Your task to perform on an android device: find snoozed emails in the gmail app Image 0: 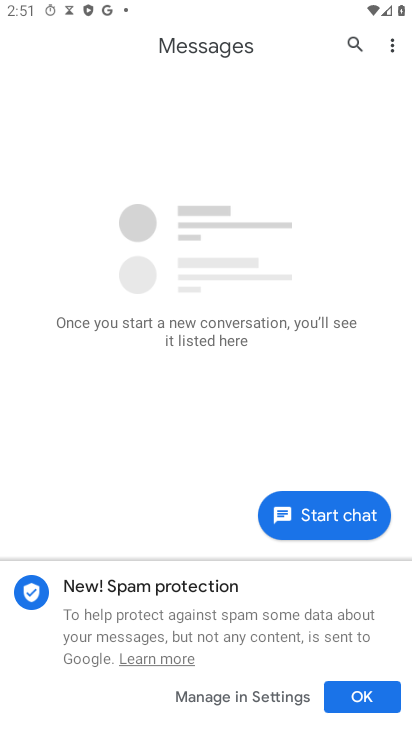
Step 0: drag from (298, 523) to (329, 126)
Your task to perform on an android device: find snoozed emails in the gmail app Image 1: 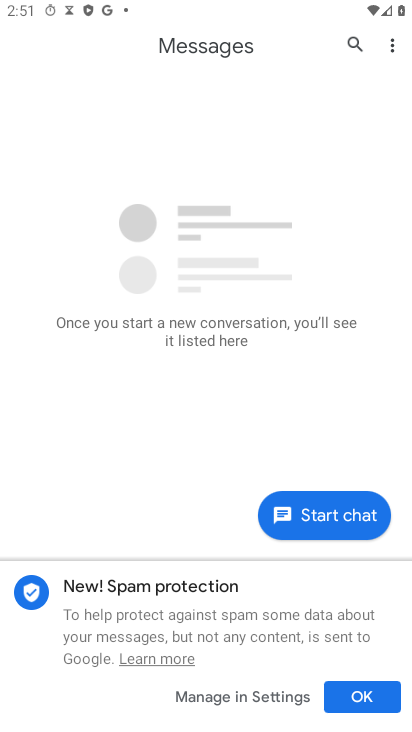
Step 1: press home button
Your task to perform on an android device: find snoozed emails in the gmail app Image 2: 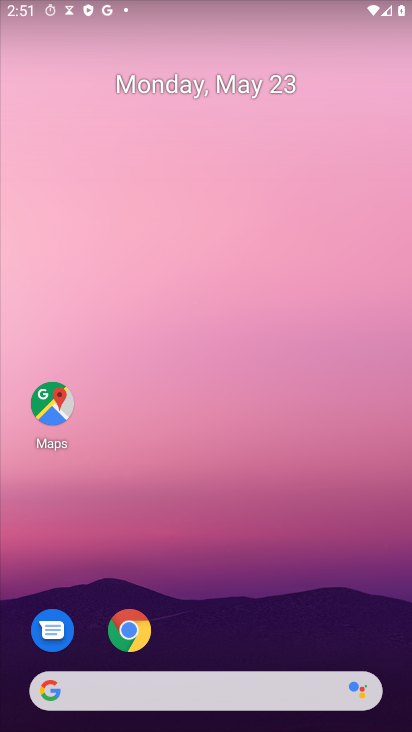
Step 2: drag from (250, 521) to (264, 134)
Your task to perform on an android device: find snoozed emails in the gmail app Image 3: 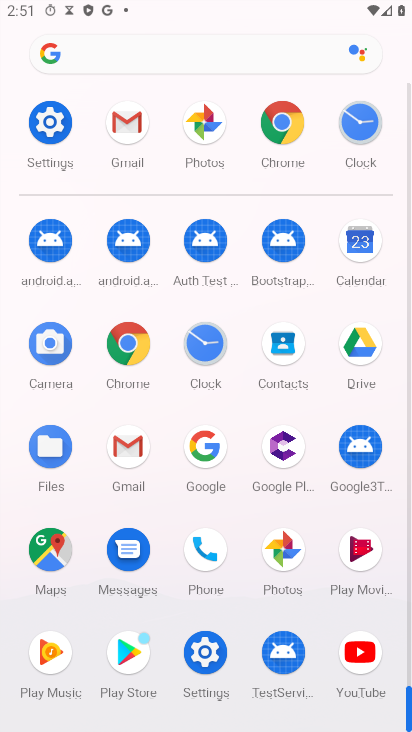
Step 3: click (126, 140)
Your task to perform on an android device: find snoozed emails in the gmail app Image 4: 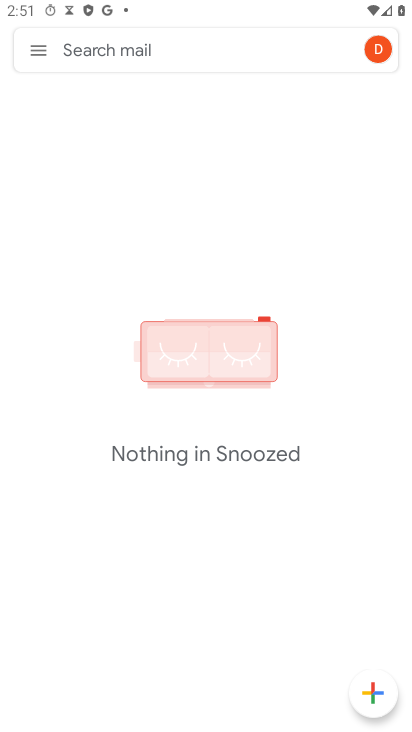
Step 4: task complete